Your task to perform on an android device: change the upload size in google photos Image 0: 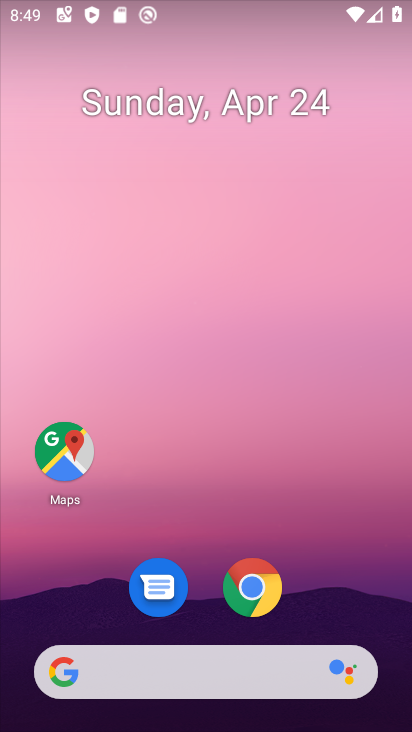
Step 0: drag from (354, 612) to (296, 10)
Your task to perform on an android device: change the upload size in google photos Image 1: 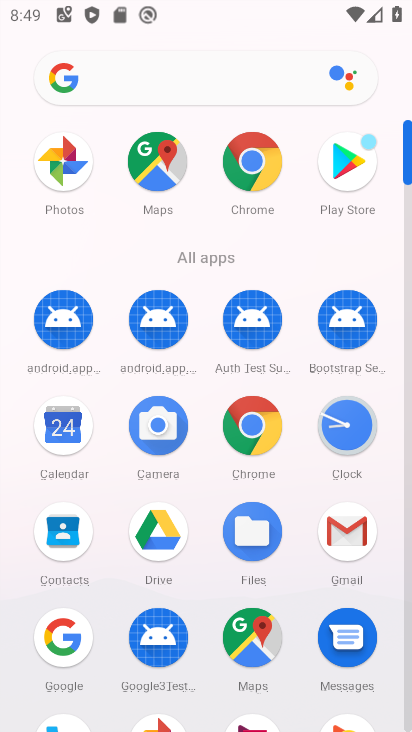
Step 1: click (80, 157)
Your task to perform on an android device: change the upload size in google photos Image 2: 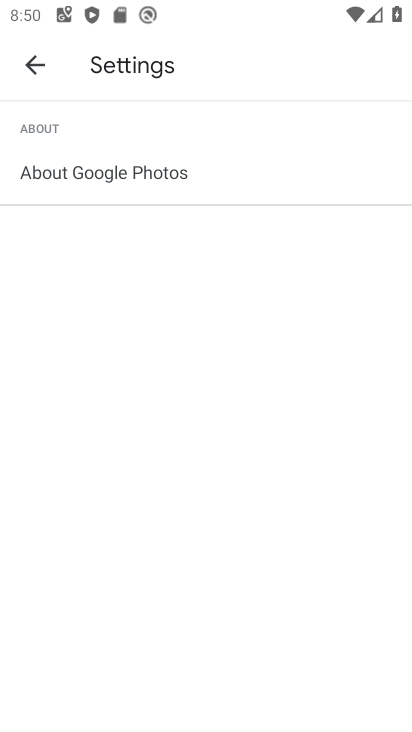
Step 2: press back button
Your task to perform on an android device: change the upload size in google photos Image 3: 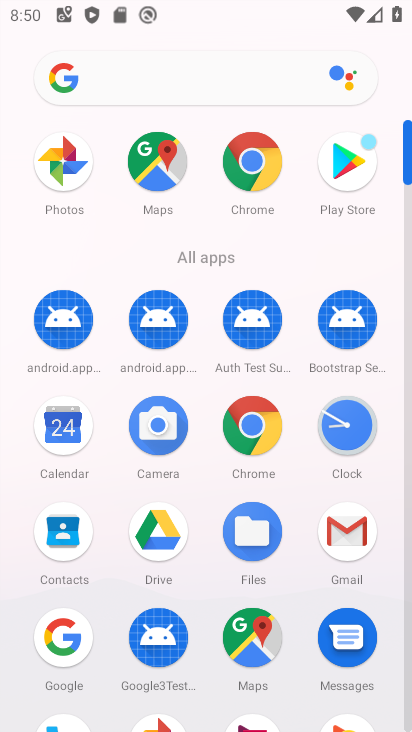
Step 3: click (69, 185)
Your task to perform on an android device: change the upload size in google photos Image 4: 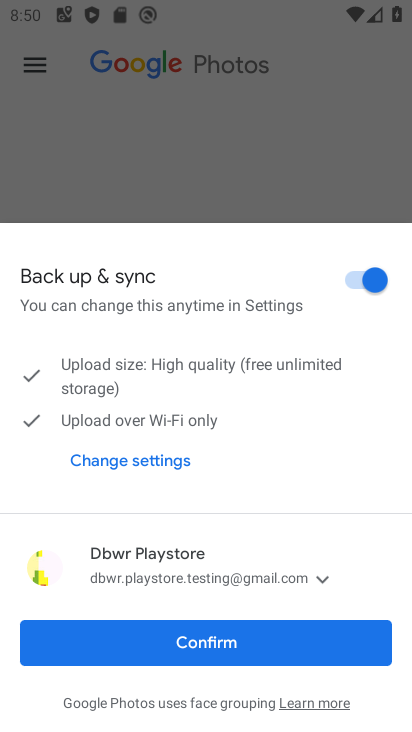
Step 4: click (227, 650)
Your task to perform on an android device: change the upload size in google photos Image 5: 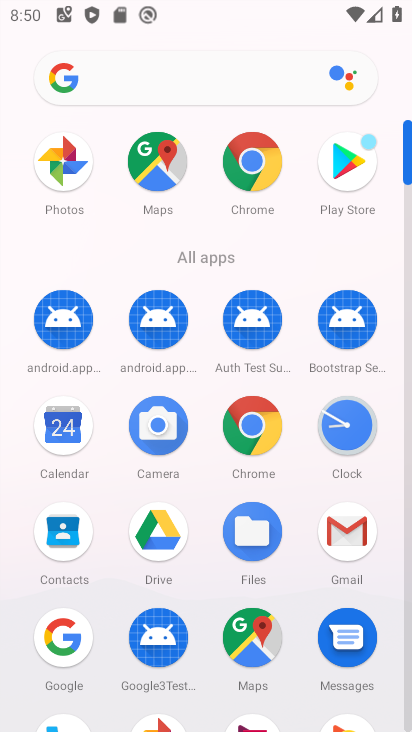
Step 5: click (55, 182)
Your task to perform on an android device: change the upload size in google photos Image 6: 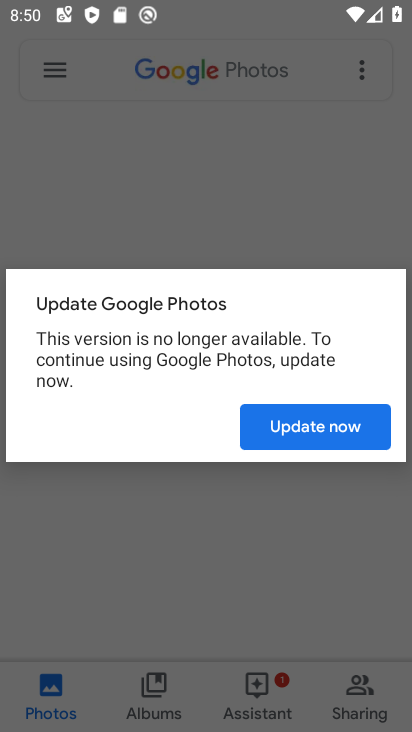
Step 6: click (343, 436)
Your task to perform on an android device: change the upload size in google photos Image 7: 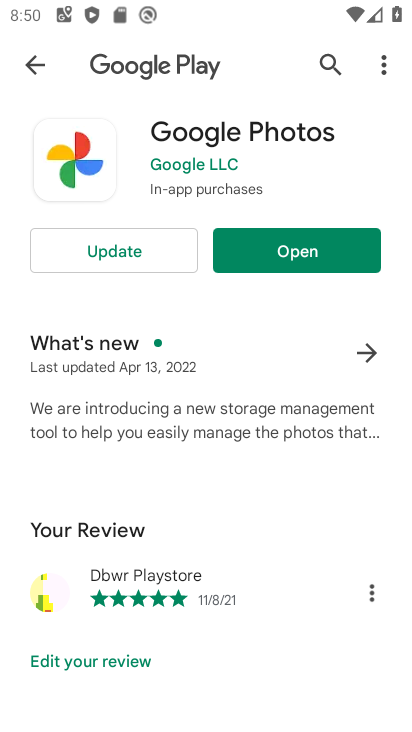
Step 7: click (163, 257)
Your task to perform on an android device: change the upload size in google photos Image 8: 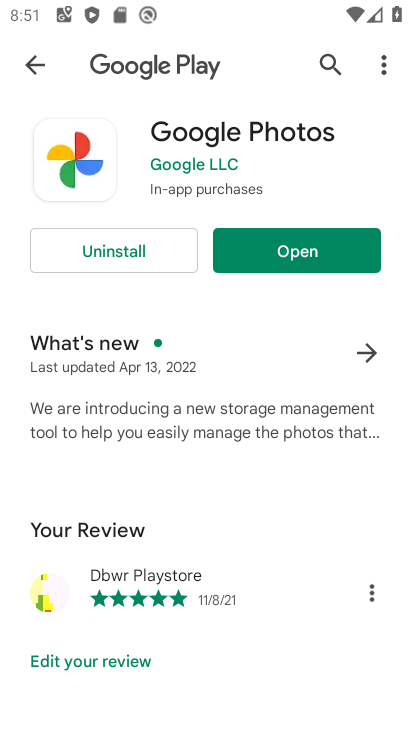
Step 8: click (271, 247)
Your task to perform on an android device: change the upload size in google photos Image 9: 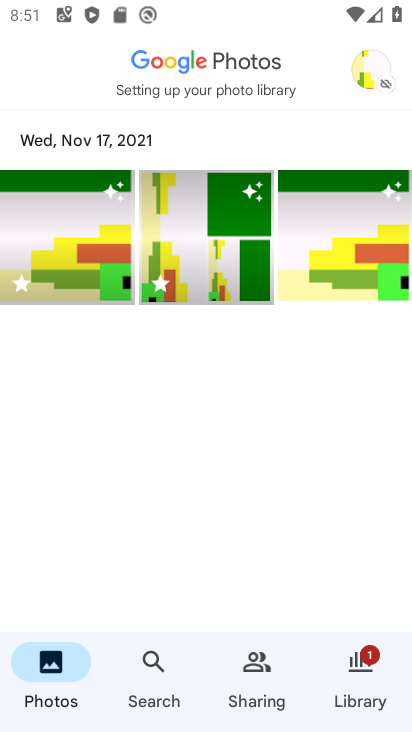
Step 9: click (378, 74)
Your task to perform on an android device: change the upload size in google photos Image 10: 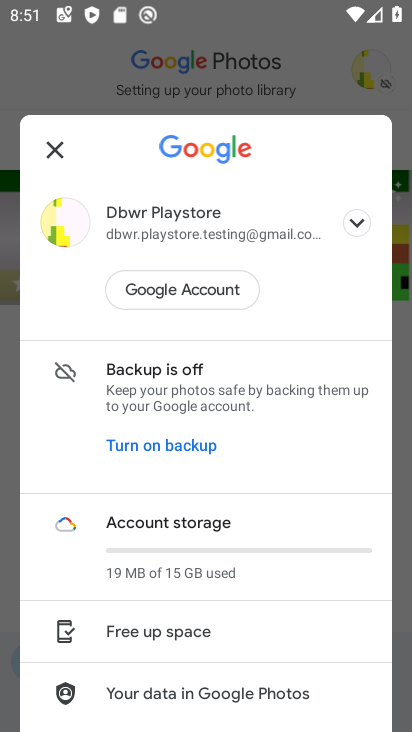
Step 10: click (181, 448)
Your task to perform on an android device: change the upload size in google photos Image 11: 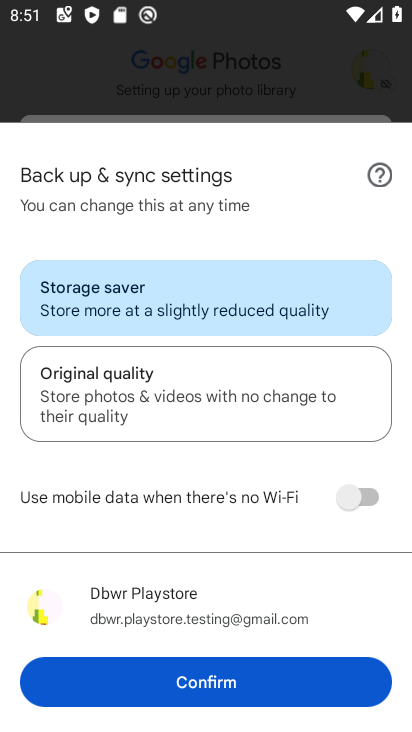
Step 11: click (198, 399)
Your task to perform on an android device: change the upload size in google photos Image 12: 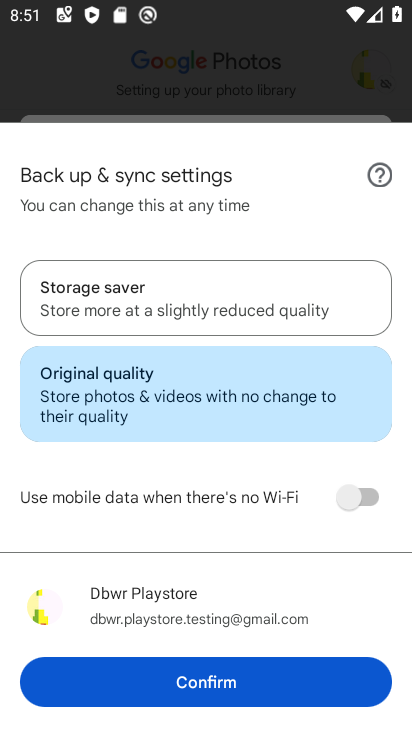
Step 12: click (308, 676)
Your task to perform on an android device: change the upload size in google photos Image 13: 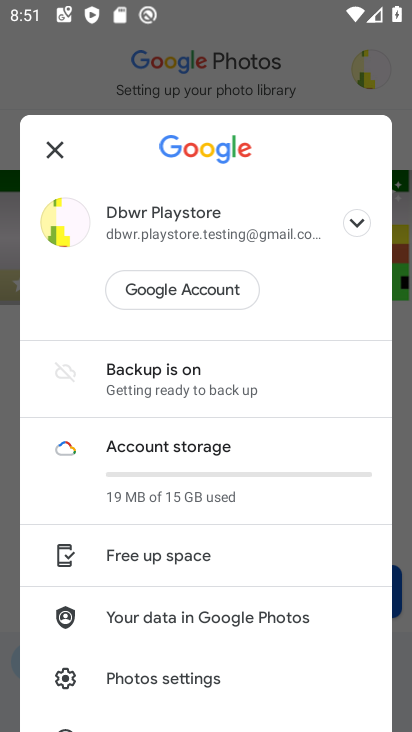
Step 13: task complete